Your task to perform on an android device: Open Android settings Image 0: 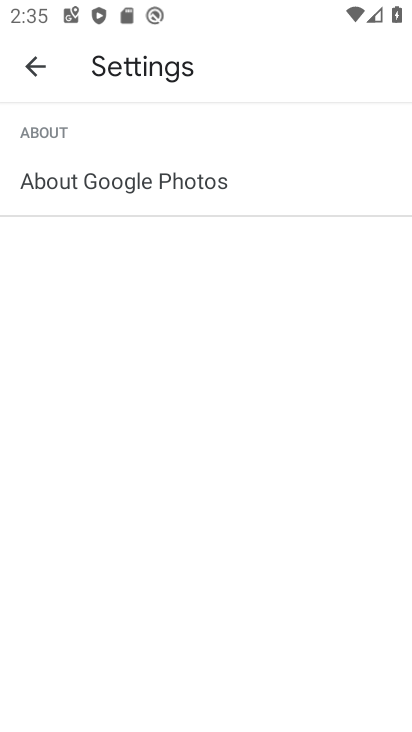
Step 0: press home button
Your task to perform on an android device: Open Android settings Image 1: 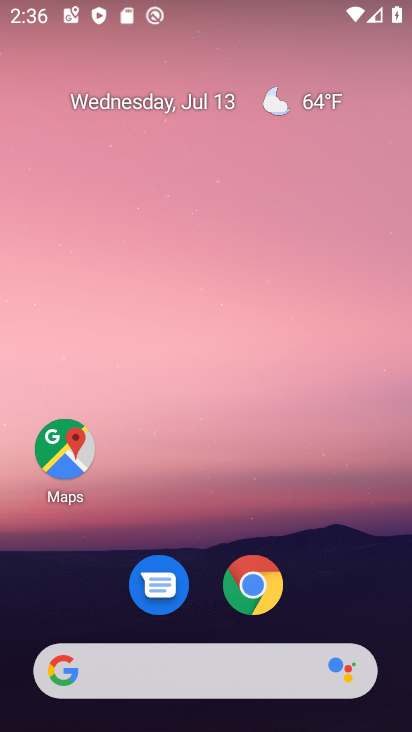
Step 1: drag from (220, 674) to (303, 35)
Your task to perform on an android device: Open Android settings Image 2: 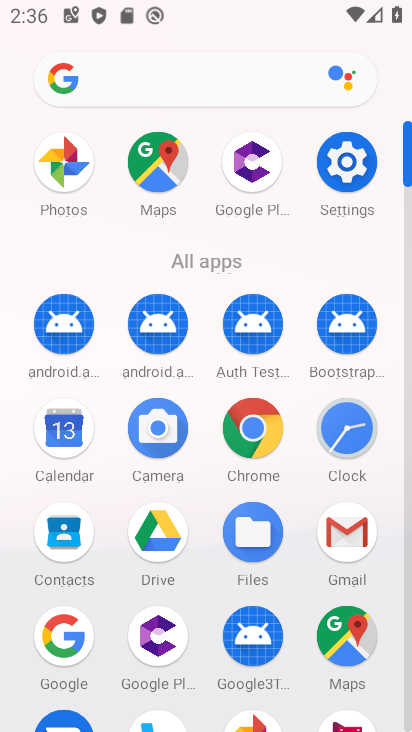
Step 2: click (350, 174)
Your task to perform on an android device: Open Android settings Image 3: 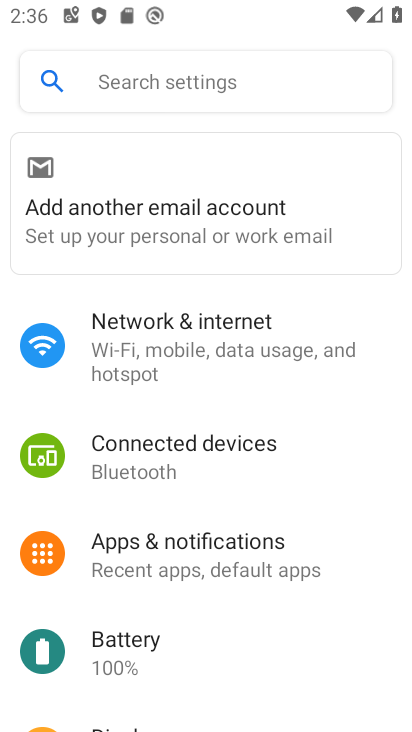
Step 3: task complete